Your task to perform on an android device: Is it going to rain this weekend? Image 0: 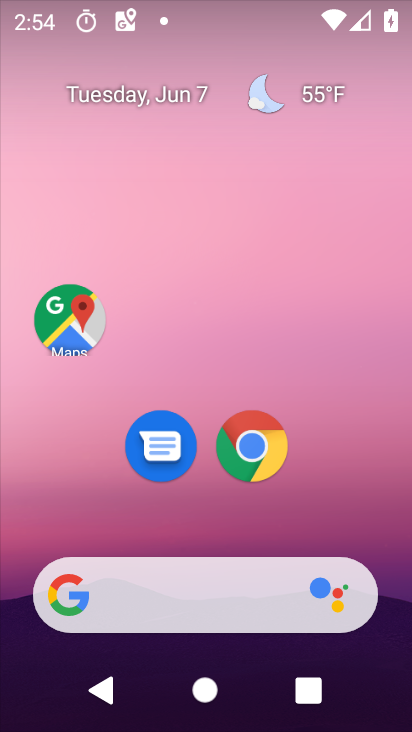
Step 0: click (297, 88)
Your task to perform on an android device: Is it going to rain this weekend? Image 1: 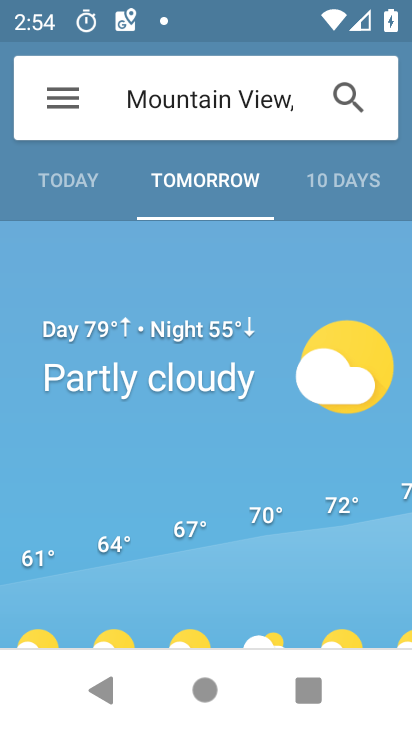
Step 1: click (336, 182)
Your task to perform on an android device: Is it going to rain this weekend? Image 2: 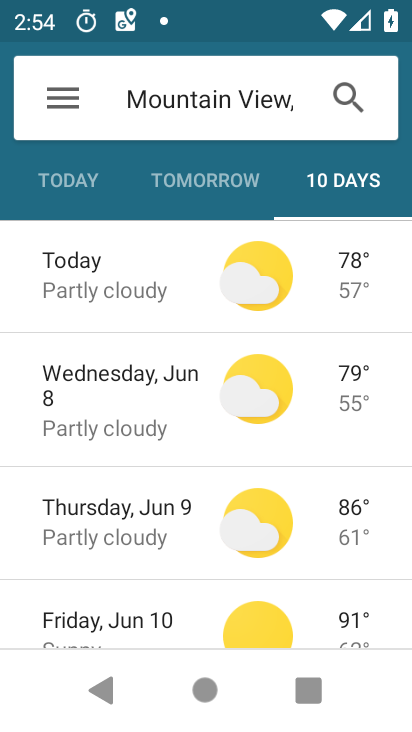
Step 2: task complete